Your task to perform on an android device: Show me popular games on the Play Store Image 0: 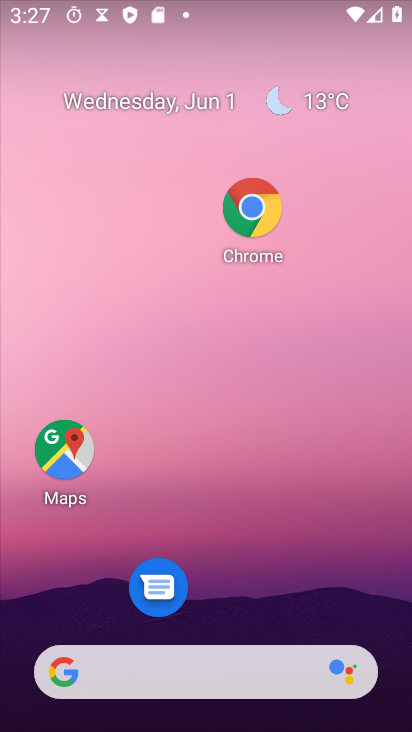
Step 0: drag from (244, 680) to (145, 100)
Your task to perform on an android device: Show me popular games on the Play Store Image 1: 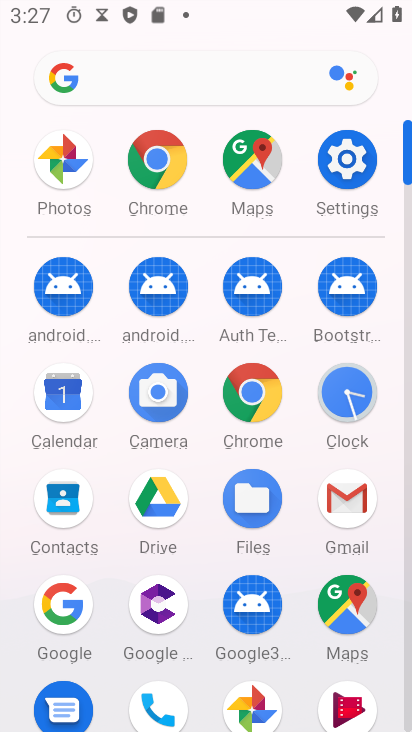
Step 1: drag from (210, 525) to (198, 180)
Your task to perform on an android device: Show me popular games on the Play Store Image 2: 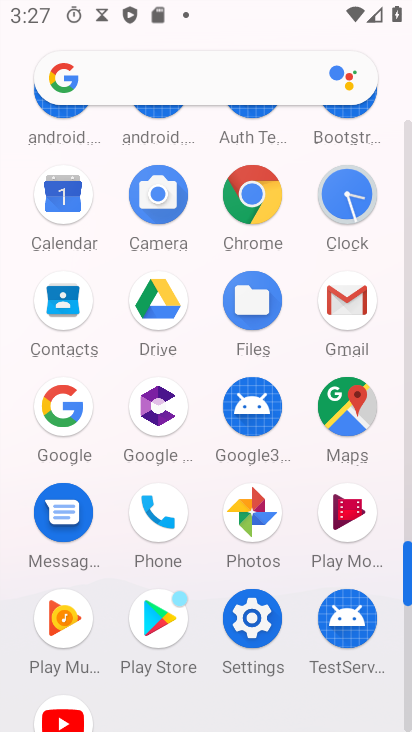
Step 2: drag from (197, 442) to (193, 205)
Your task to perform on an android device: Show me popular games on the Play Store Image 3: 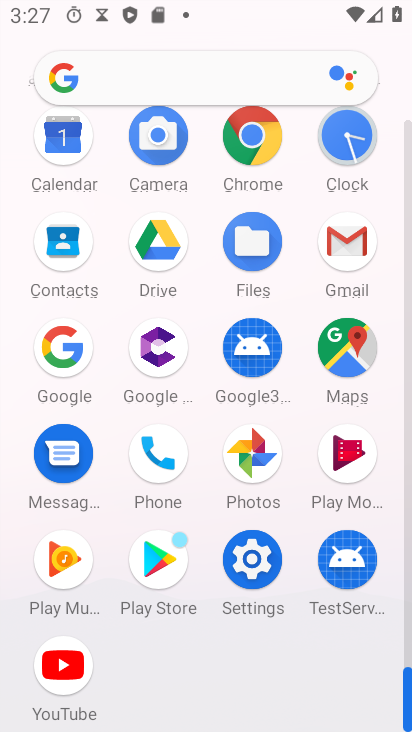
Step 3: click (157, 552)
Your task to perform on an android device: Show me popular games on the Play Store Image 4: 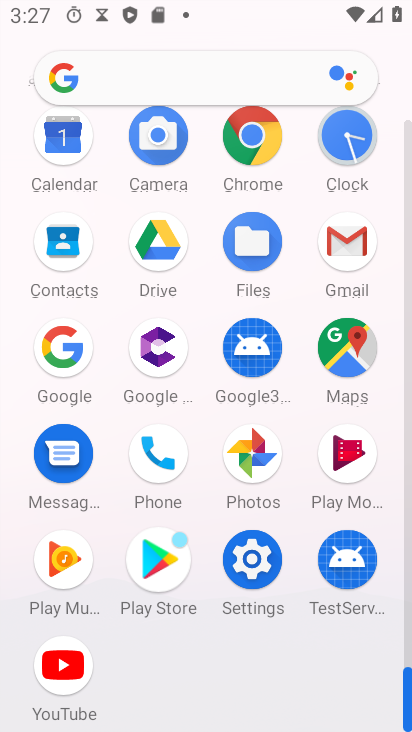
Step 4: click (157, 552)
Your task to perform on an android device: Show me popular games on the Play Store Image 5: 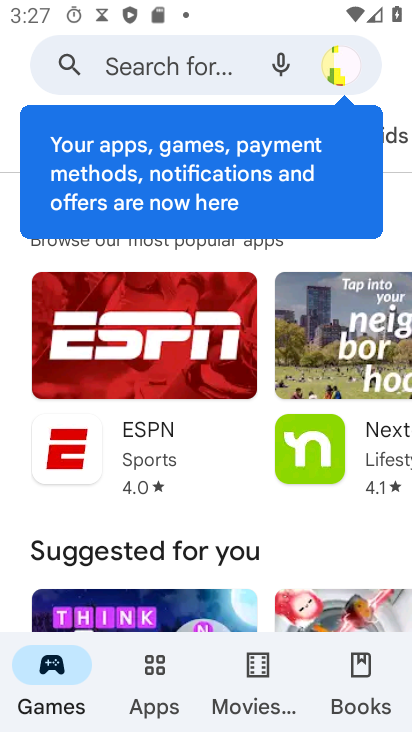
Step 5: click (121, 60)
Your task to perform on an android device: Show me popular games on the Play Store Image 6: 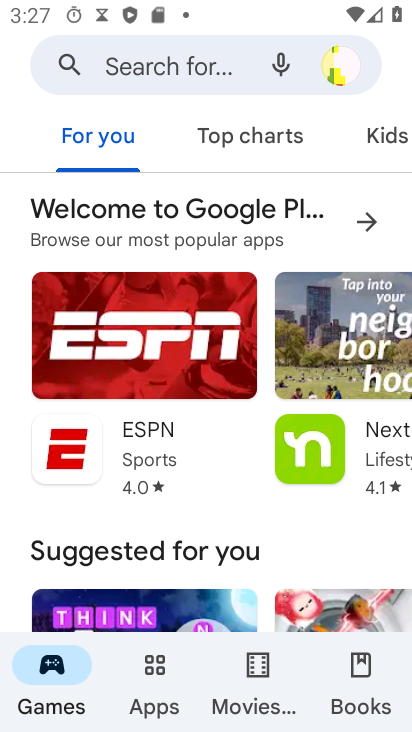
Step 6: click (120, 60)
Your task to perform on an android device: Show me popular games on the Play Store Image 7: 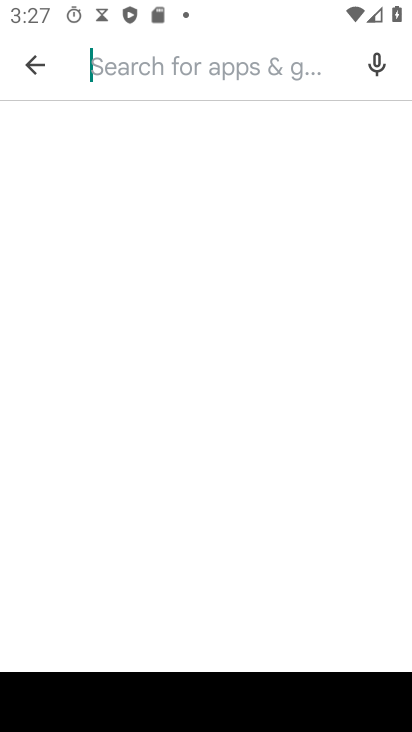
Step 7: type "popular games"
Your task to perform on an android device: Show me popular games on the Play Store Image 8: 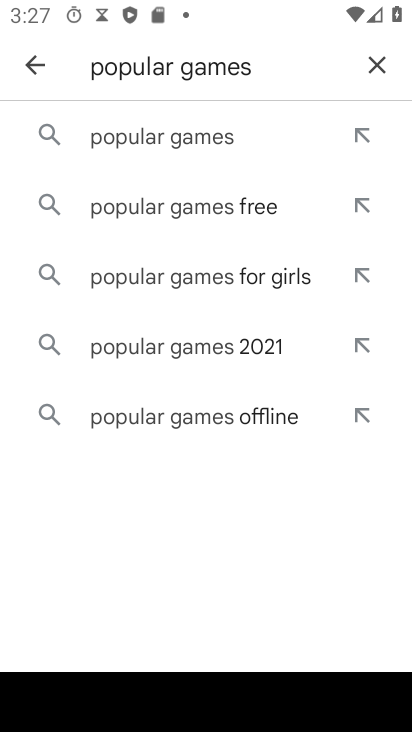
Step 8: click (166, 143)
Your task to perform on an android device: Show me popular games on the Play Store Image 9: 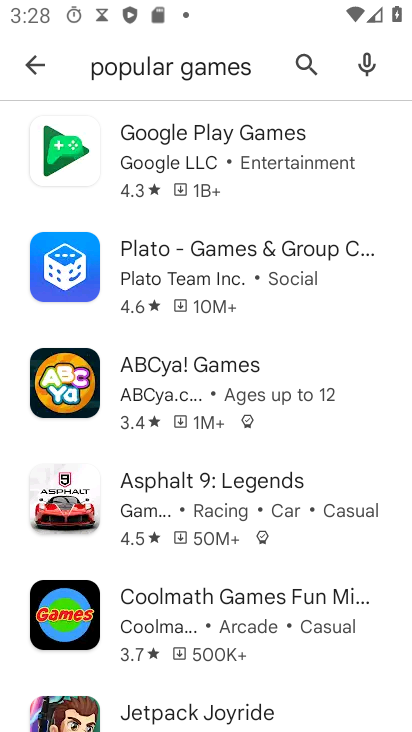
Step 9: task complete